Your task to perform on an android device: Open calendar and show me the first week of next month Image 0: 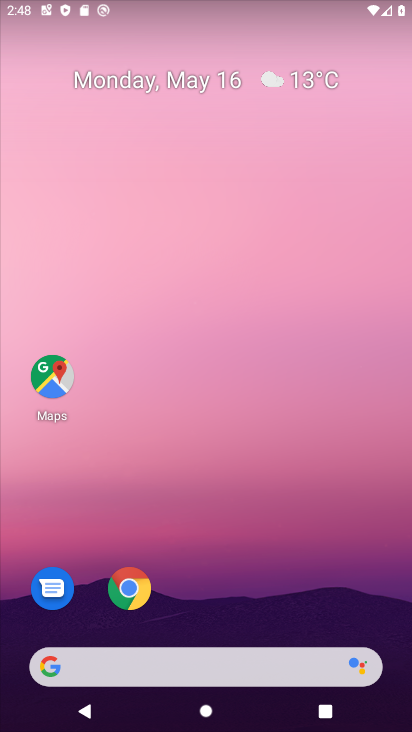
Step 0: drag from (228, 698) to (215, 21)
Your task to perform on an android device: Open calendar and show me the first week of next month Image 1: 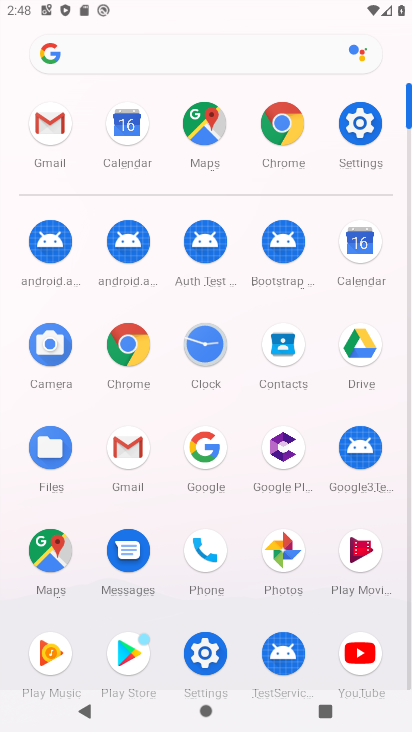
Step 1: click (356, 242)
Your task to perform on an android device: Open calendar and show me the first week of next month Image 2: 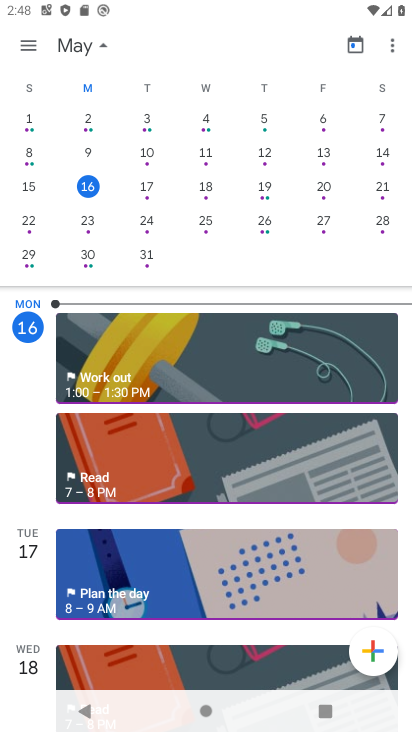
Step 2: drag from (358, 185) to (61, 215)
Your task to perform on an android device: Open calendar and show me the first week of next month Image 3: 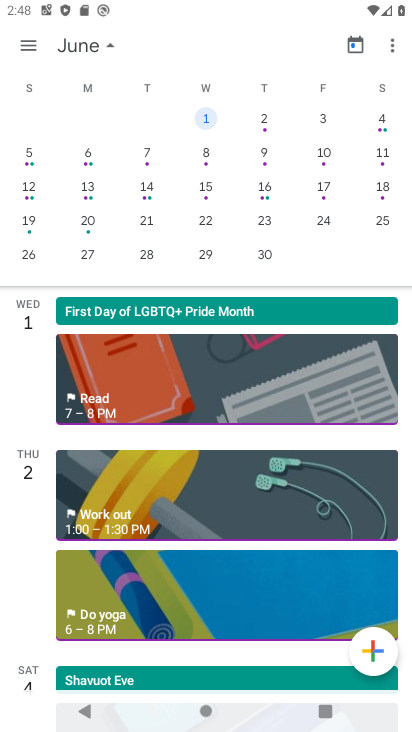
Step 3: click (376, 123)
Your task to perform on an android device: Open calendar and show me the first week of next month Image 4: 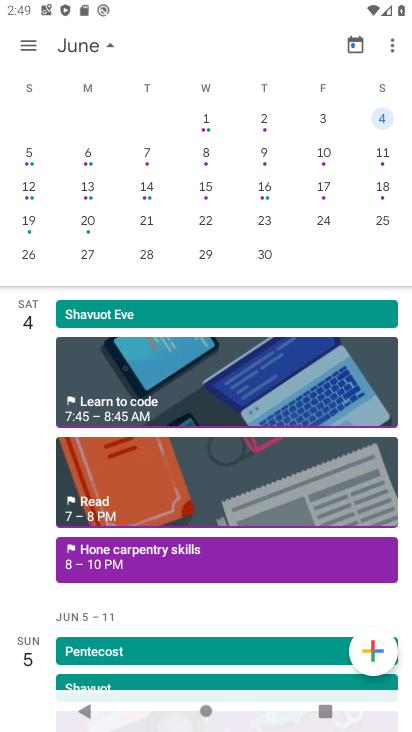
Step 4: task complete